Your task to perform on an android device: Open accessibility settings Image 0: 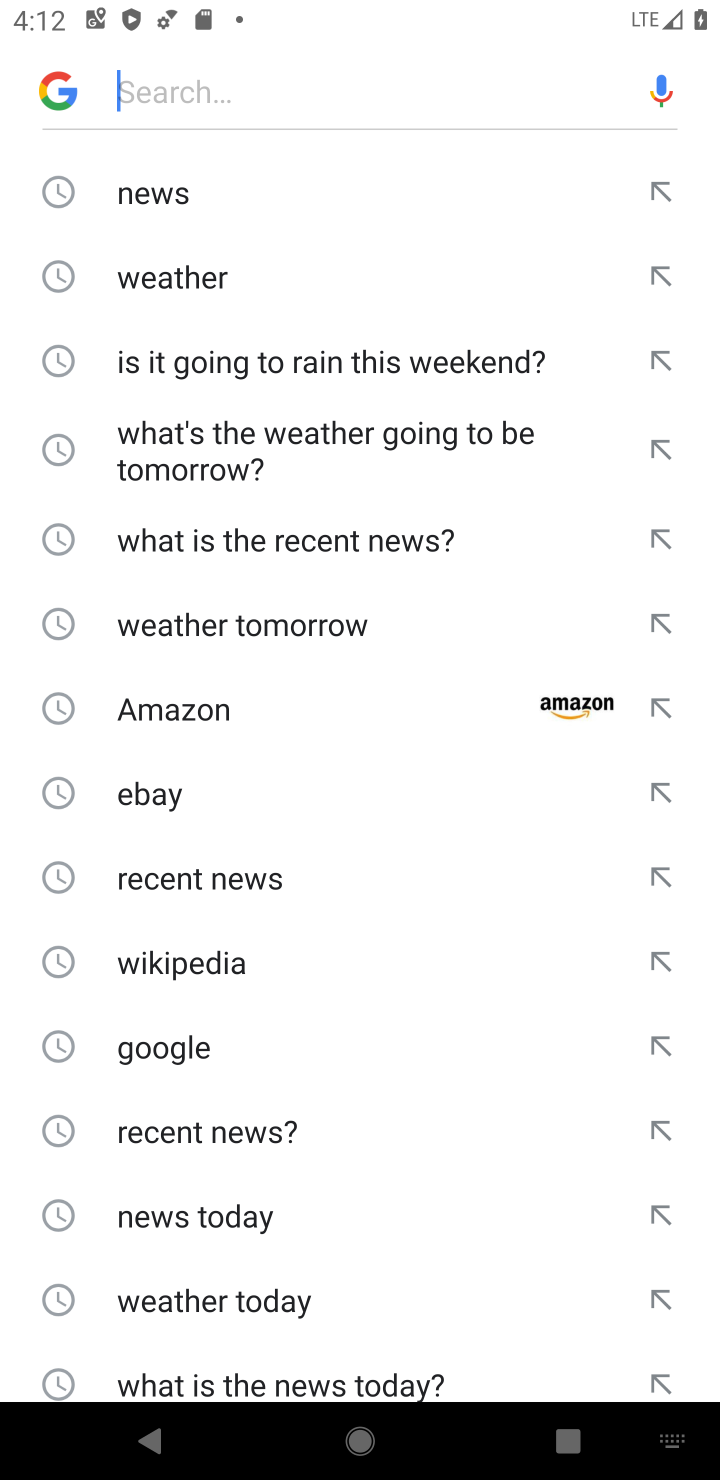
Step 0: press home button
Your task to perform on an android device: Open accessibility settings Image 1: 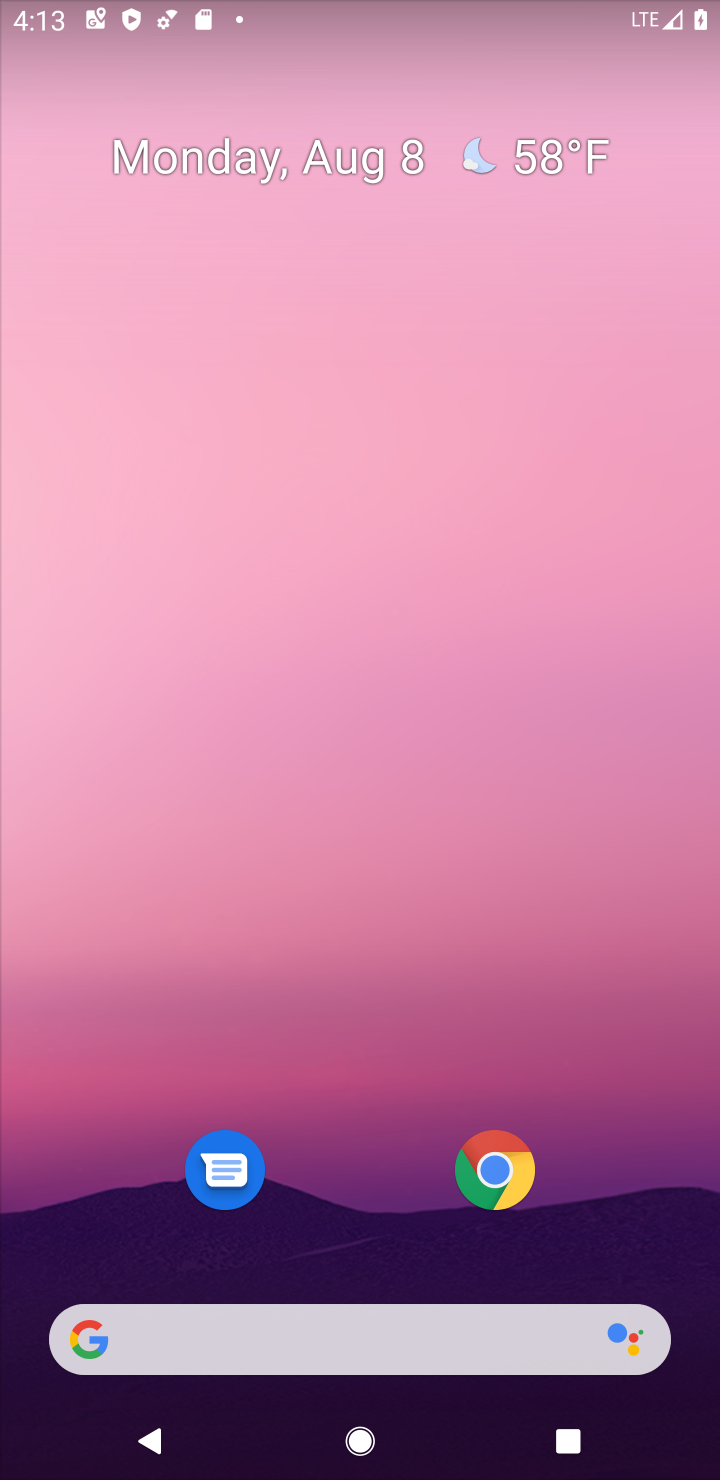
Step 1: drag from (352, 703) to (352, 400)
Your task to perform on an android device: Open accessibility settings Image 2: 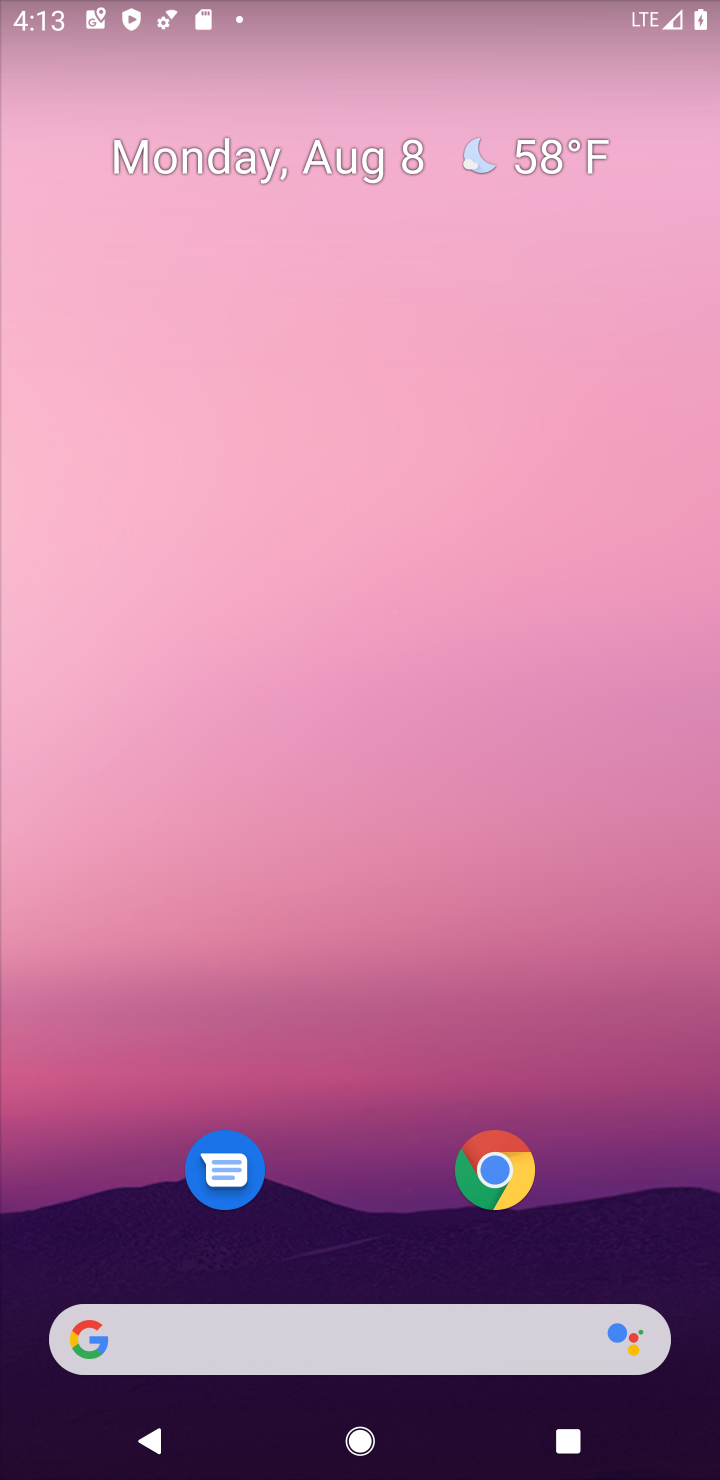
Step 2: drag from (324, 990) to (296, 520)
Your task to perform on an android device: Open accessibility settings Image 3: 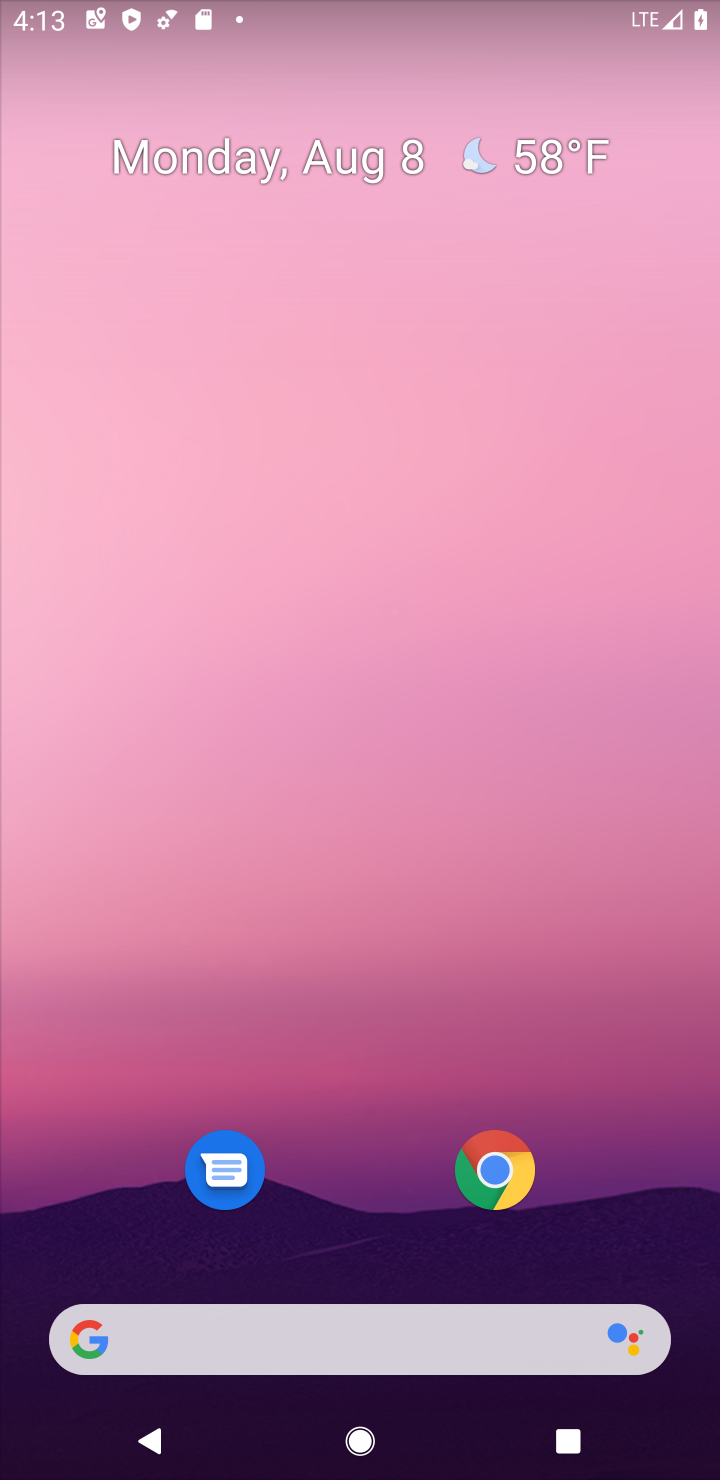
Step 3: drag from (328, 1177) to (334, 463)
Your task to perform on an android device: Open accessibility settings Image 4: 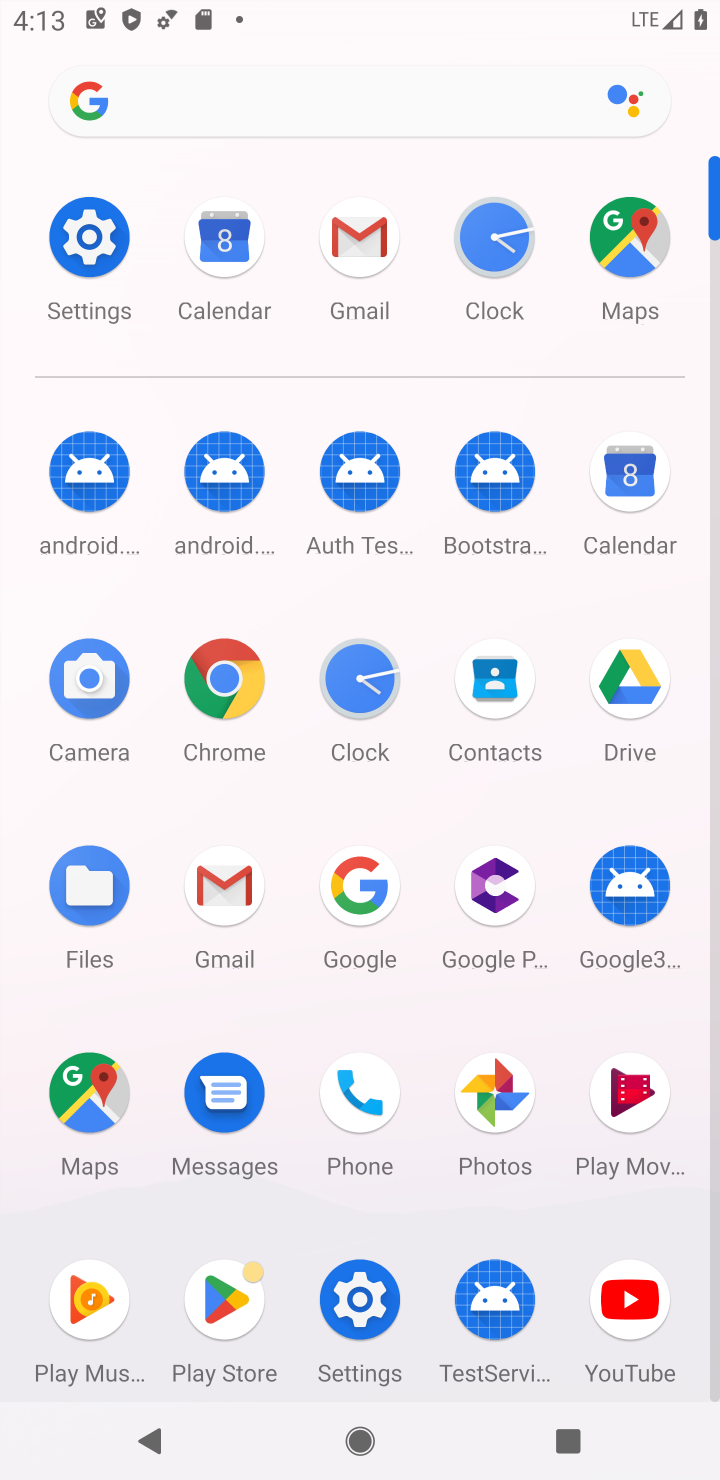
Step 4: click (79, 238)
Your task to perform on an android device: Open accessibility settings Image 5: 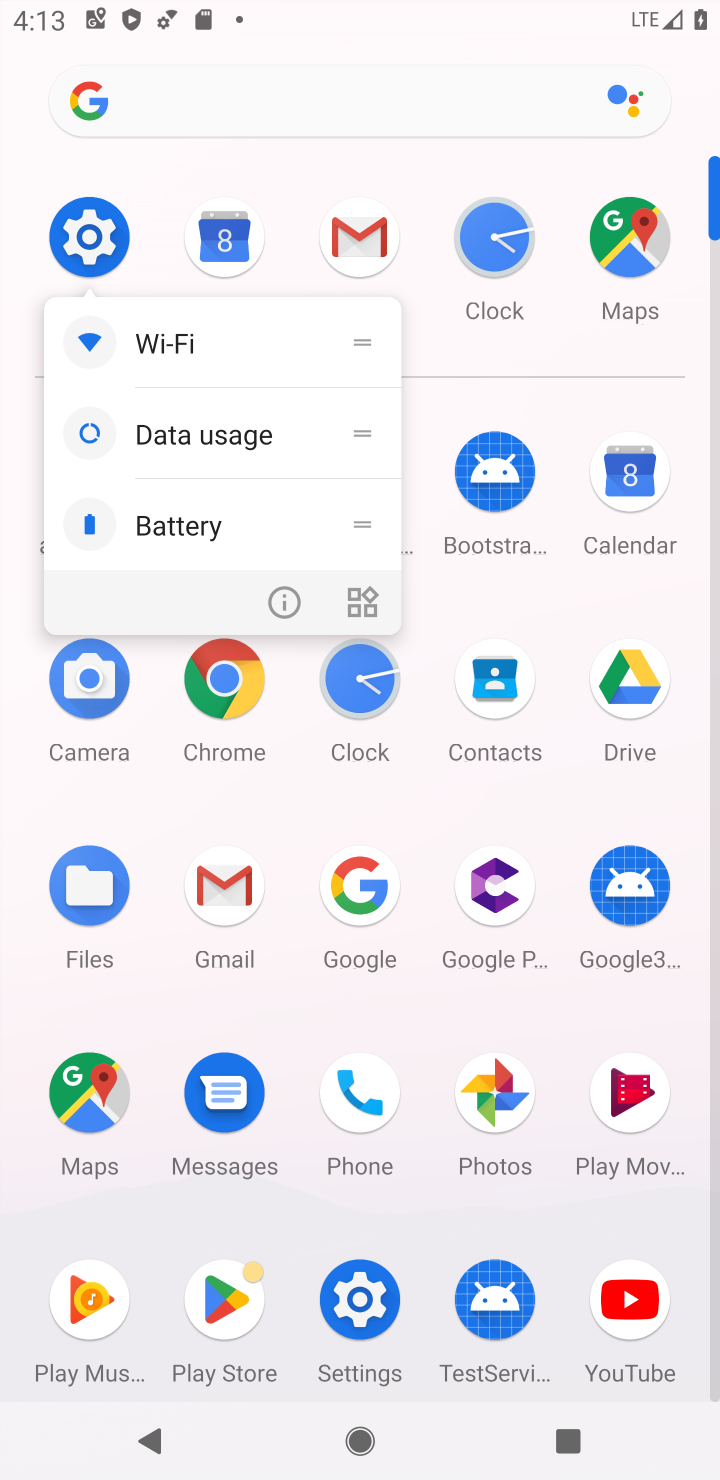
Step 5: click (79, 238)
Your task to perform on an android device: Open accessibility settings Image 6: 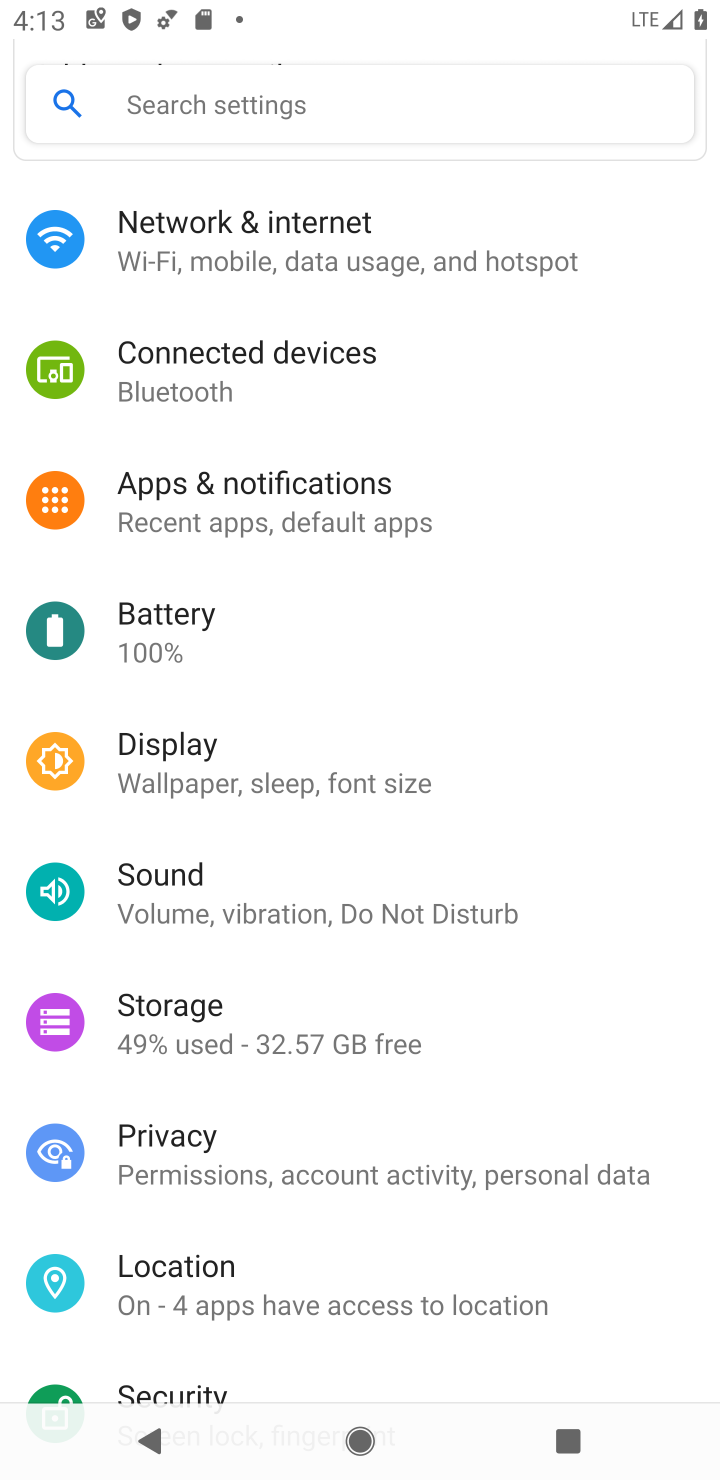
Step 6: drag from (392, 1165) to (438, 556)
Your task to perform on an android device: Open accessibility settings Image 7: 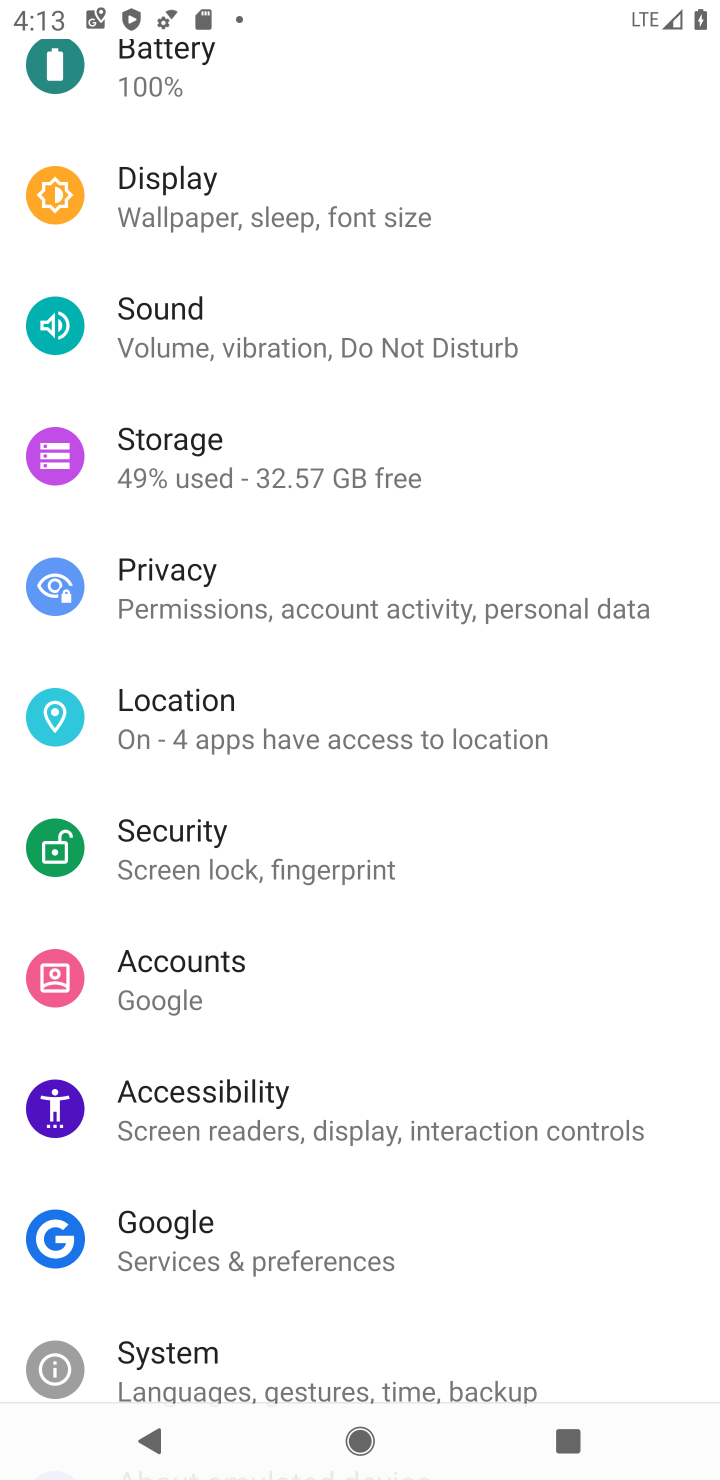
Step 7: click (195, 1130)
Your task to perform on an android device: Open accessibility settings Image 8: 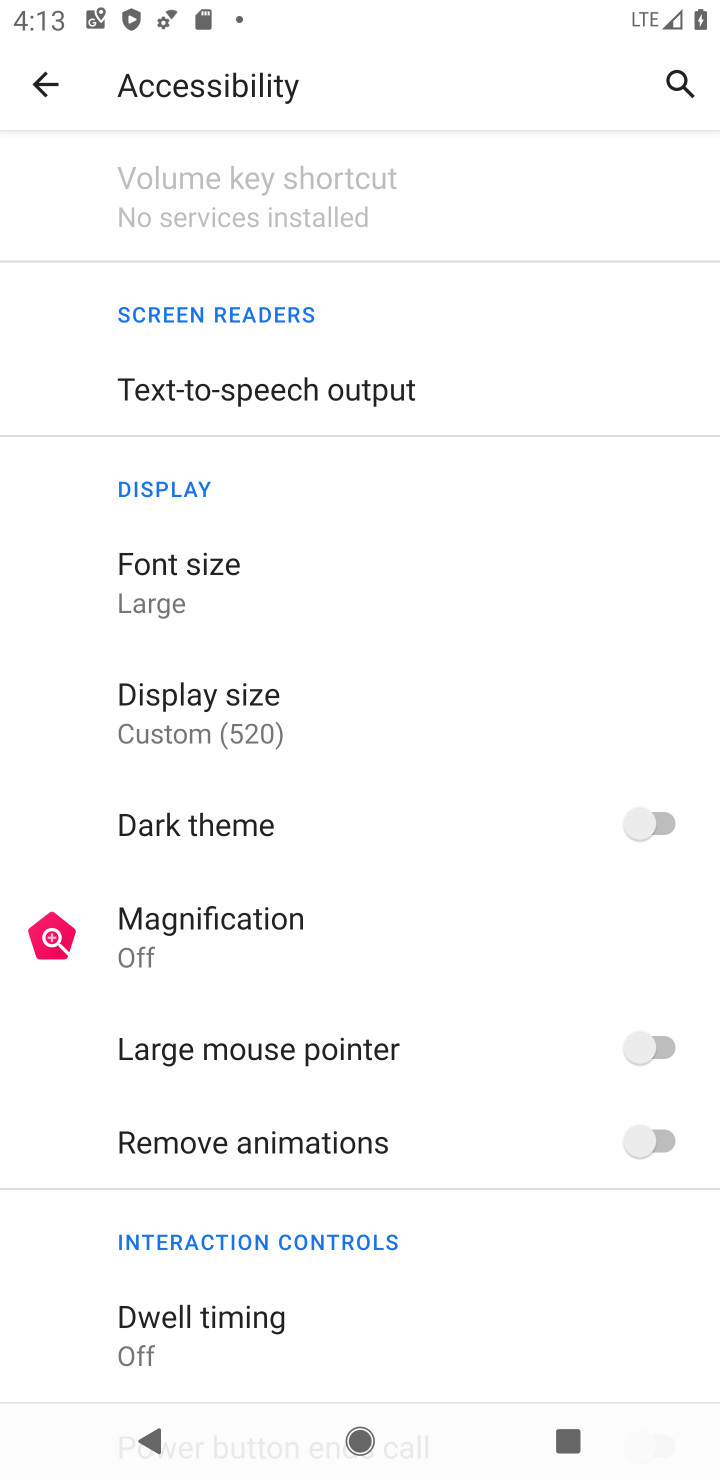
Step 8: task complete